Your task to perform on an android device: What is the recent news? Image 0: 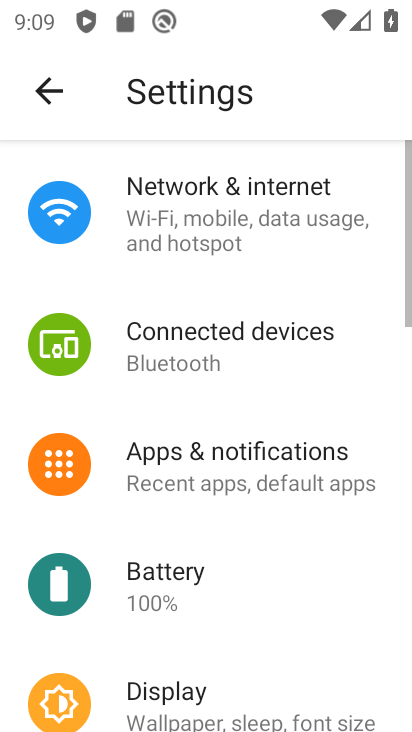
Step 0: press home button
Your task to perform on an android device: What is the recent news? Image 1: 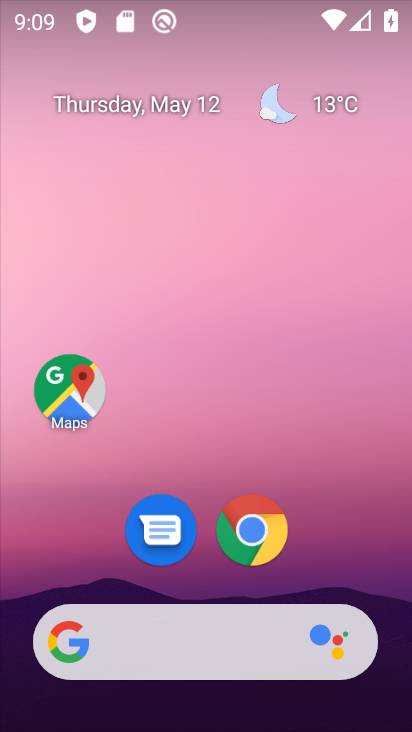
Step 1: click (188, 630)
Your task to perform on an android device: What is the recent news? Image 2: 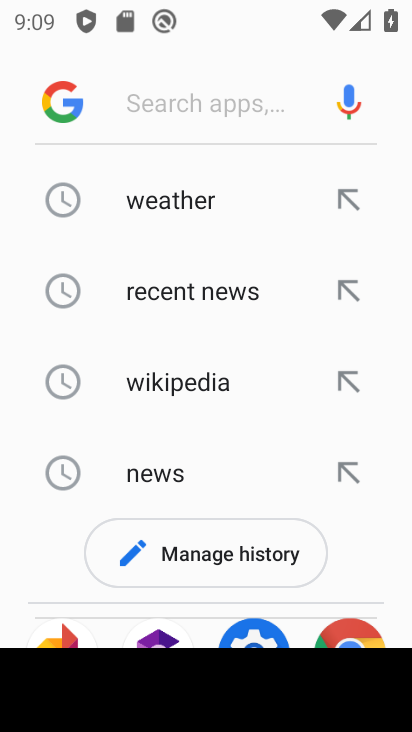
Step 2: click (140, 293)
Your task to perform on an android device: What is the recent news? Image 3: 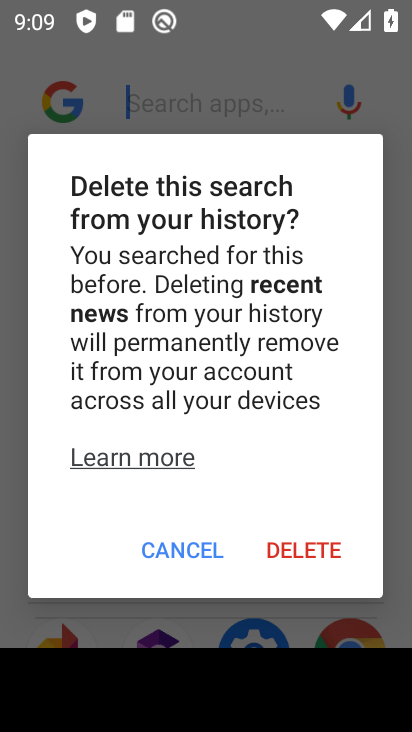
Step 3: click (189, 545)
Your task to perform on an android device: What is the recent news? Image 4: 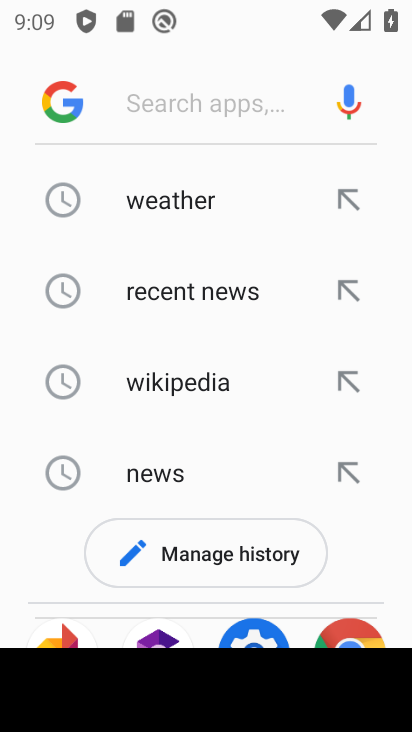
Step 4: click (355, 288)
Your task to perform on an android device: What is the recent news? Image 5: 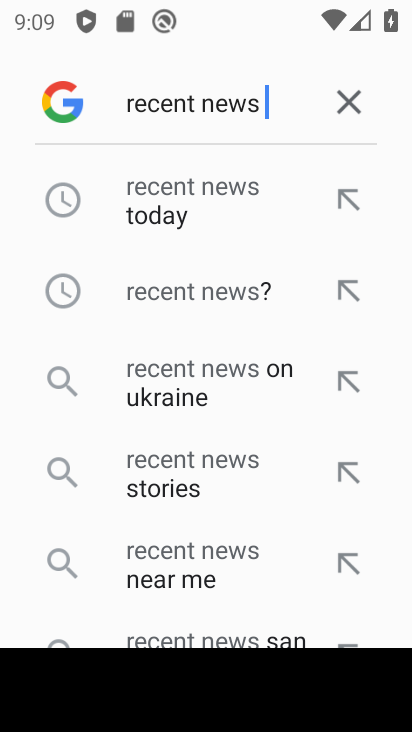
Step 5: click (274, 103)
Your task to perform on an android device: What is the recent news? Image 6: 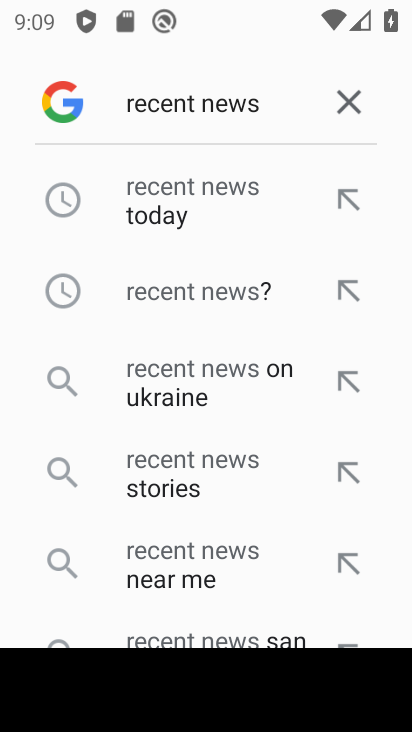
Step 6: click (350, 108)
Your task to perform on an android device: What is the recent news? Image 7: 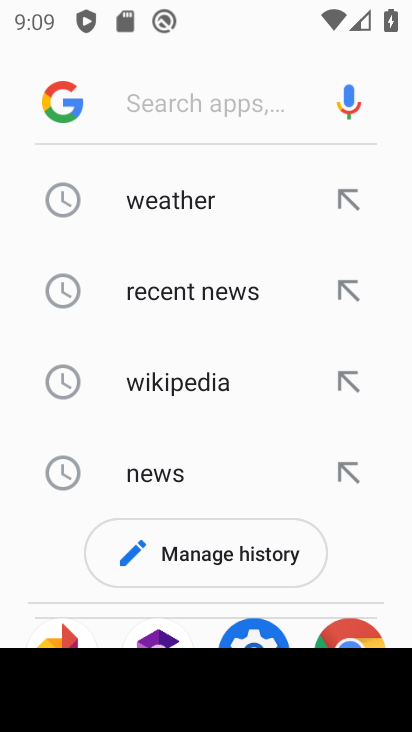
Step 7: type "recent news"
Your task to perform on an android device: What is the recent news? Image 8: 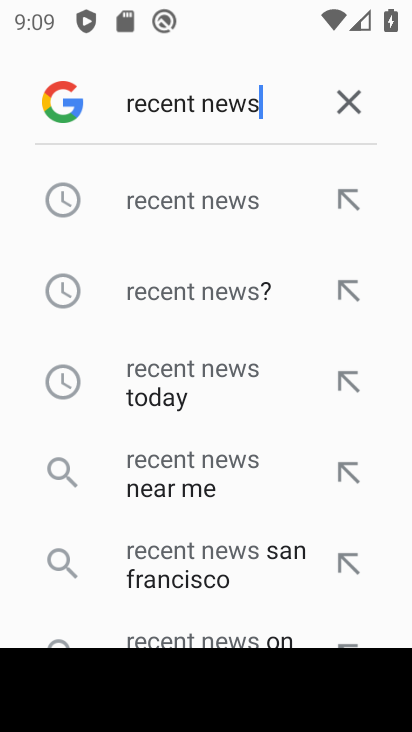
Step 8: click (201, 193)
Your task to perform on an android device: What is the recent news? Image 9: 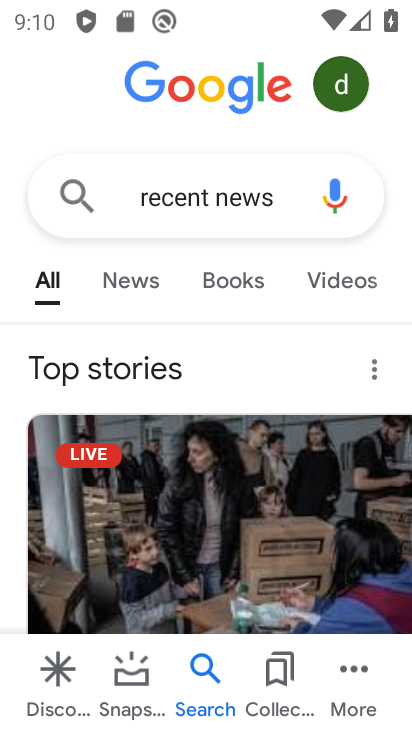
Step 9: drag from (170, 512) to (240, 181)
Your task to perform on an android device: What is the recent news? Image 10: 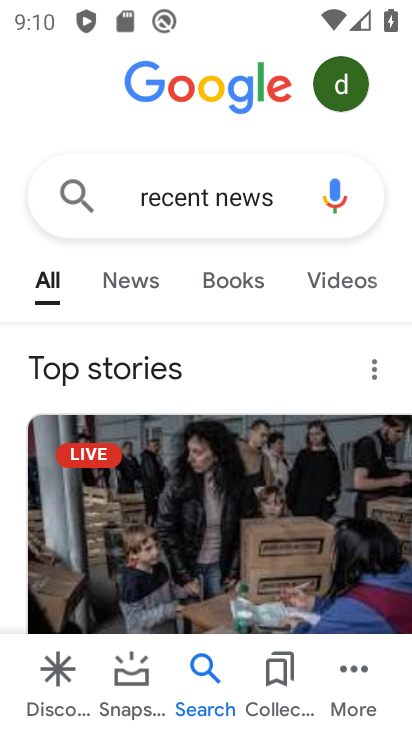
Step 10: click (119, 269)
Your task to perform on an android device: What is the recent news? Image 11: 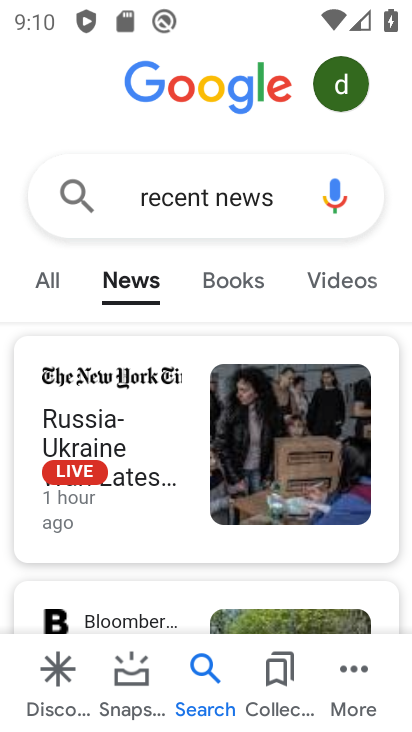
Step 11: drag from (150, 481) to (195, 190)
Your task to perform on an android device: What is the recent news? Image 12: 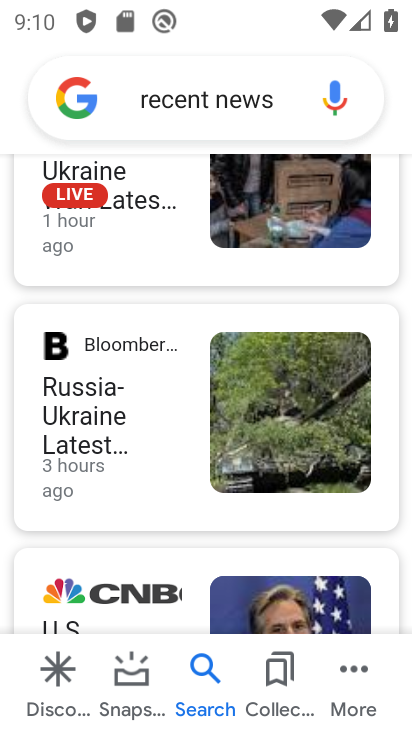
Step 12: drag from (240, 245) to (165, 516)
Your task to perform on an android device: What is the recent news? Image 13: 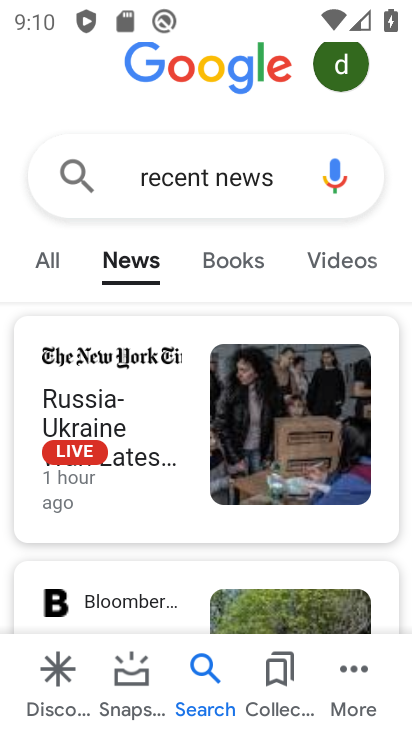
Step 13: click (107, 403)
Your task to perform on an android device: What is the recent news? Image 14: 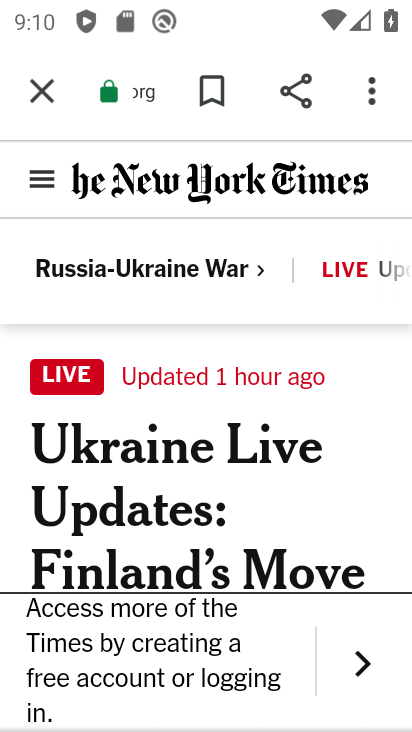
Step 14: task complete